Your task to perform on an android device: Check the settings for the Spotify app Image 0: 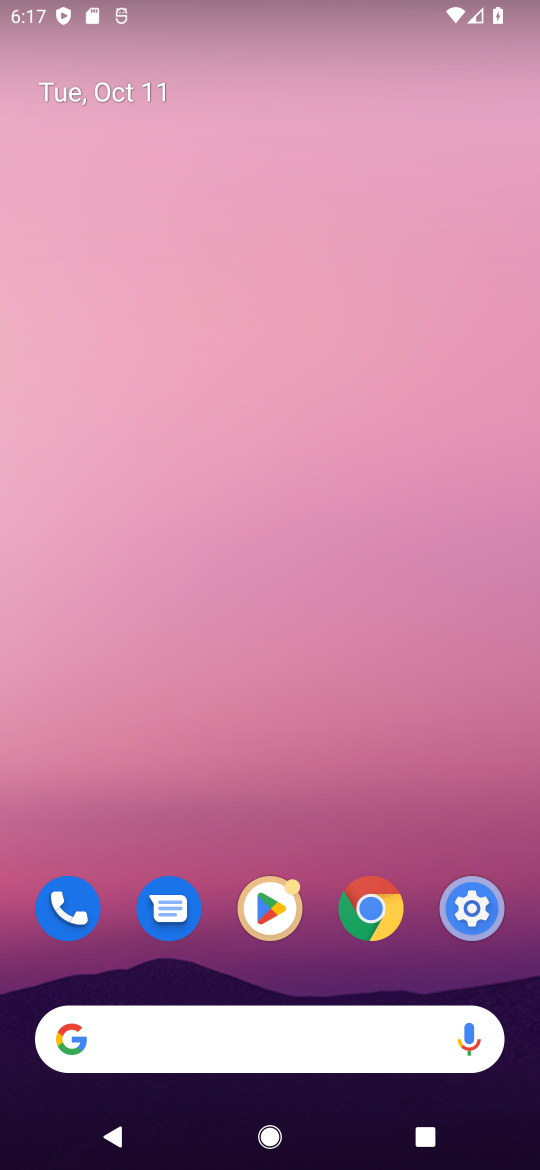
Step 0: drag from (326, 823) to (282, 162)
Your task to perform on an android device: Check the settings for the Spotify app Image 1: 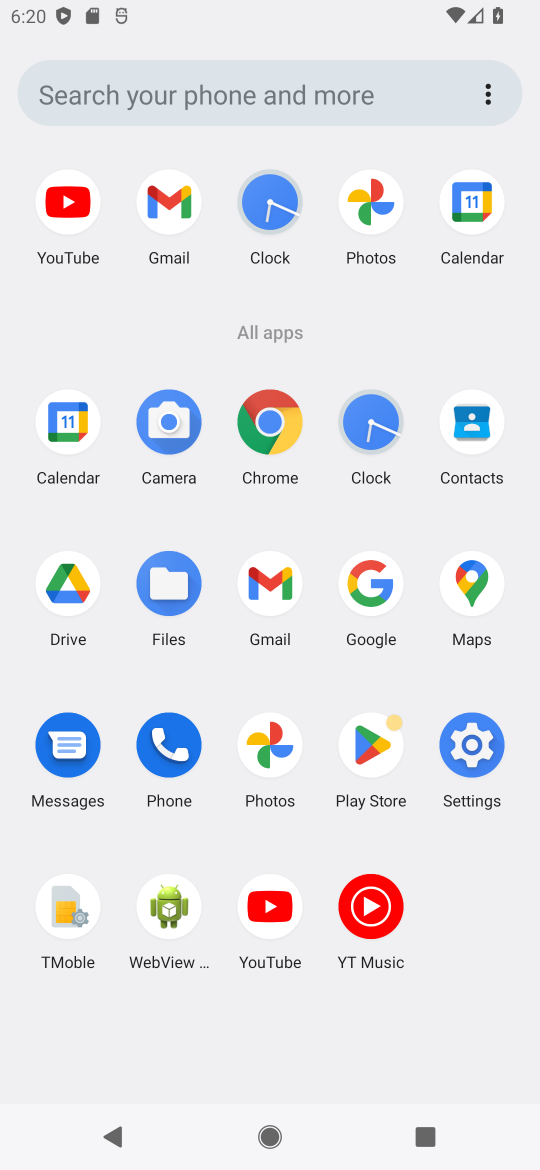
Step 1: task complete